Your task to perform on an android device: Open calendar and show me the first week of next month Image 0: 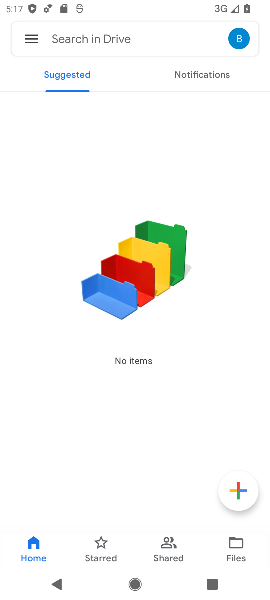
Step 0: press home button
Your task to perform on an android device: Open calendar and show me the first week of next month Image 1: 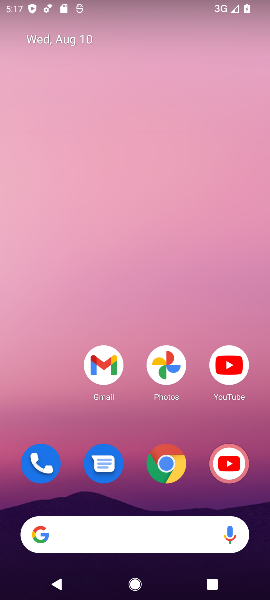
Step 1: drag from (135, 492) to (103, 41)
Your task to perform on an android device: Open calendar and show me the first week of next month Image 2: 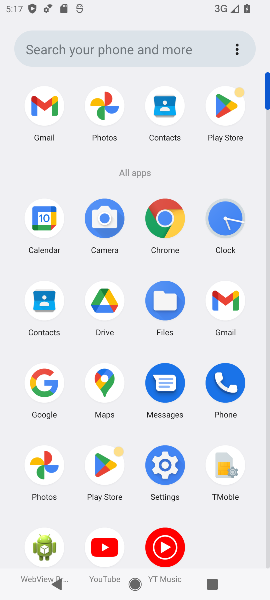
Step 2: click (40, 214)
Your task to perform on an android device: Open calendar and show me the first week of next month Image 3: 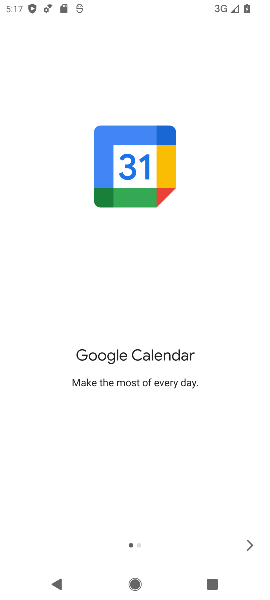
Step 3: click (251, 539)
Your task to perform on an android device: Open calendar and show me the first week of next month Image 4: 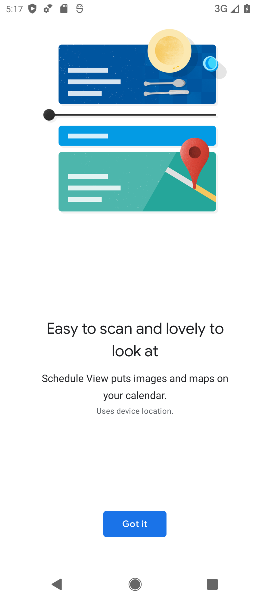
Step 4: click (131, 523)
Your task to perform on an android device: Open calendar and show me the first week of next month Image 5: 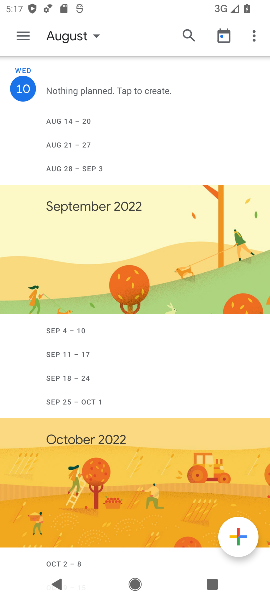
Step 5: click (25, 28)
Your task to perform on an android device: Open calendar and show me the first week of next month Image 6: 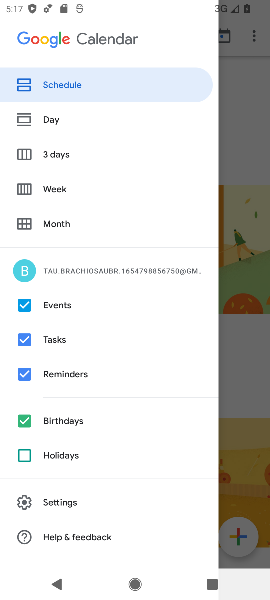
Step 6: click (51, 190)
Your task to perform on an android device: Open calendar and show me the first week of next month Image 7: 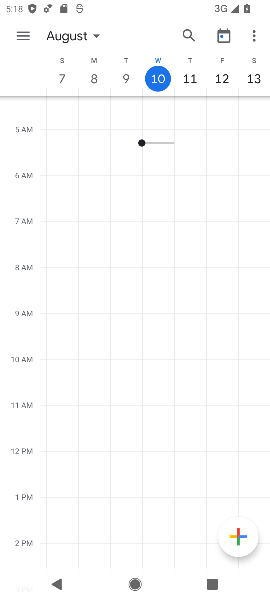
Step 7: click (74, 106)
Your task to perform on an android device: Open calendar and show me the first week of next month Image 8: 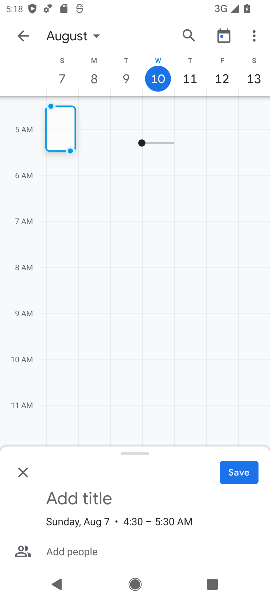
Step 8: click (92, 27)
Your task to perform on an android device: Open calendar and show me the first week of next month Image 9: 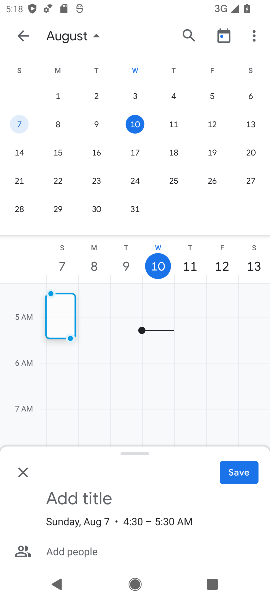
Step 9: drag from (231, 151) to (0, 137)
Your task to perform on an android device: Open calendar and show me the first week of next month Image 10: 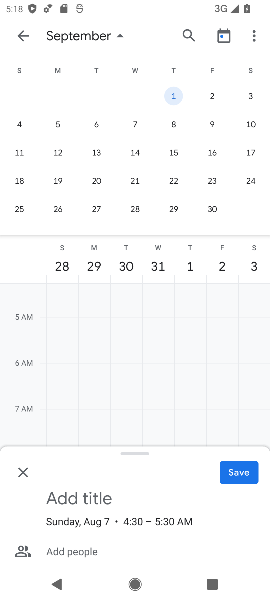
Step 10: click (171, 90)
Your task to perform on an android device: Open calendar and show me the first week of next month Image 11: 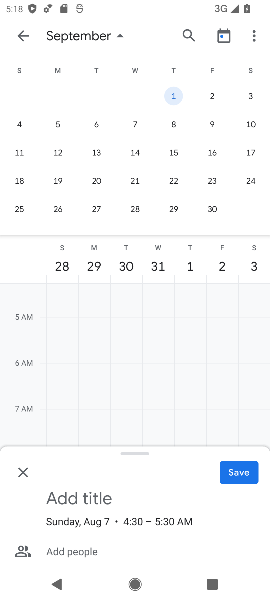
Step 11: task complete